Your task to perform on an android device: make emails show in primary in the gmail app Image 0: 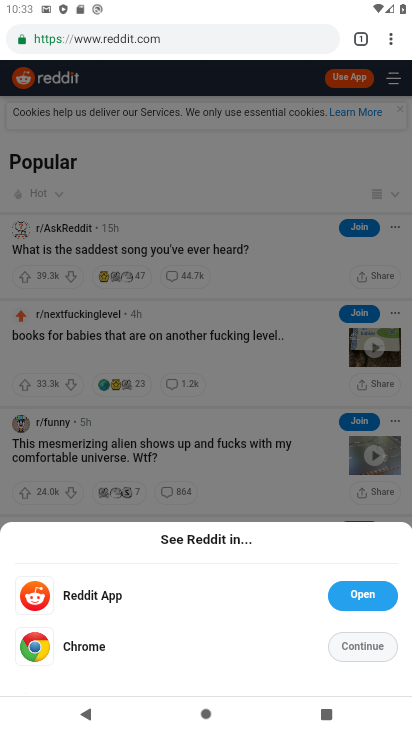
Step 0: press home button
Your task to perform on an android device: make emails show in primary in the gmail app Image 1: 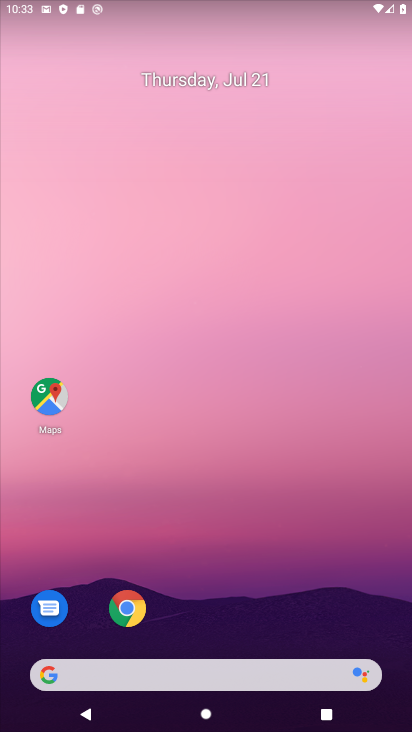
Step 1: drag from (198, 629) to (144, 9)
Your task to perform on an android device: make emails show in primary in the gmail app Image 2: 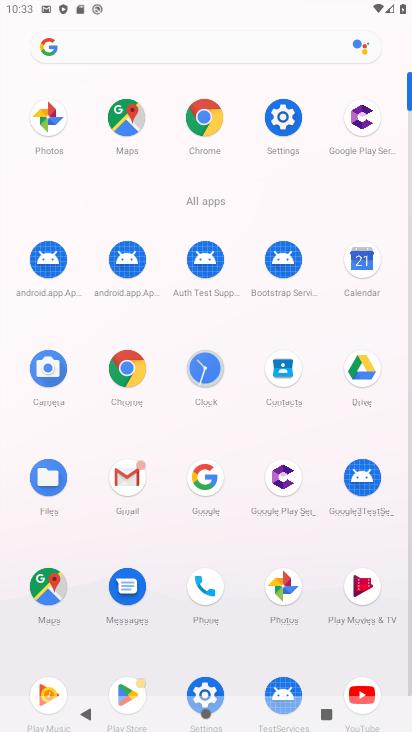
Step 2: click (124, 489)
Your task to perform on an android device: make emails show in primary in the gmail app Image 3: 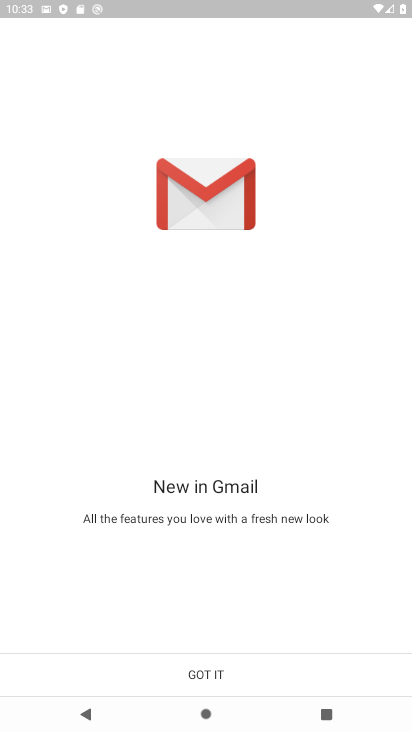
Step 3: click (203, 672)
Your task to perform on an android device: make emails show in primary in the gmail app Image 4: 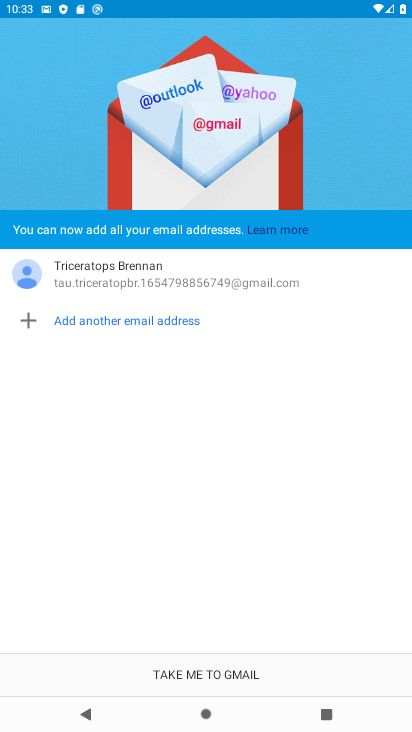
Step 4: click (203, 672)
Your task to perform on an android device: make emails show in primary in the gmail app Image 5: 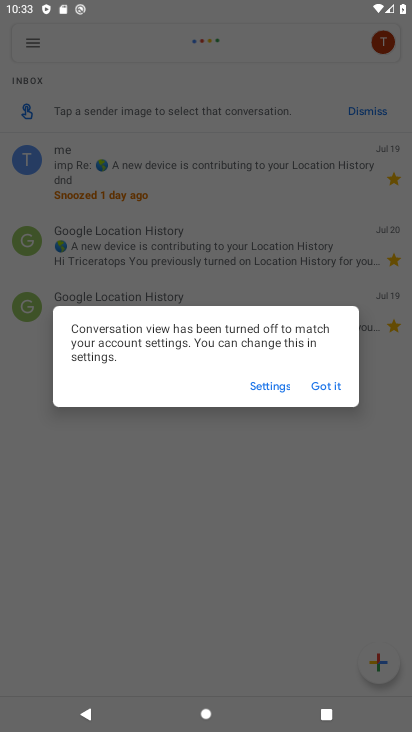
Step 5: click (328, 385)
Your task to perform on an android device: make emails show in primary in the gmail app Image 6: 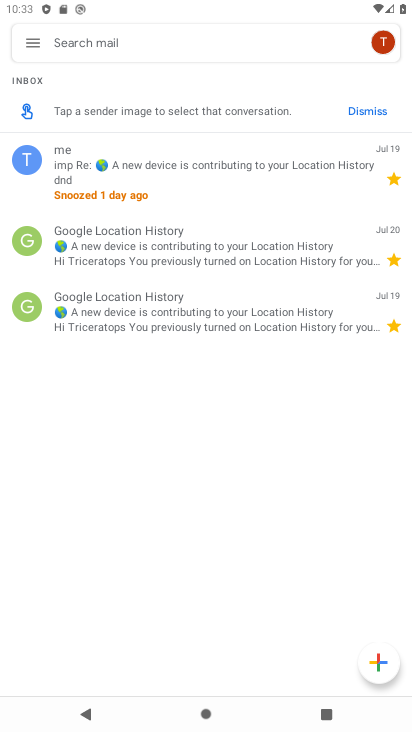
Step 6: click (37, 37)
Your task to perform on an android device: make emails show in primary in the gmail app Image 7: 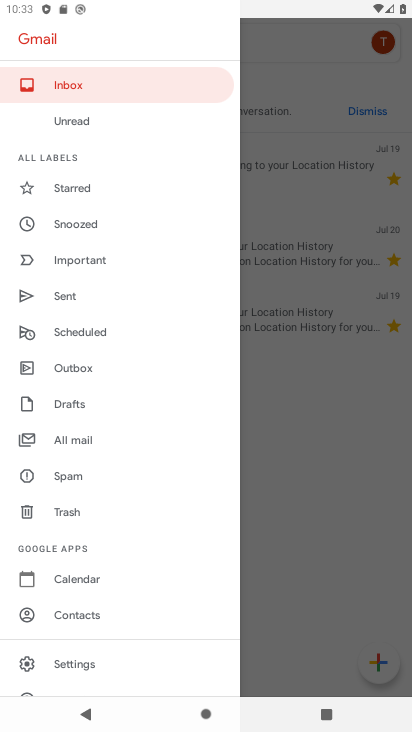
Step 7: click (78, 662)
Your task to perform on an android device: make emails show in primary in the gmail app Image 8: 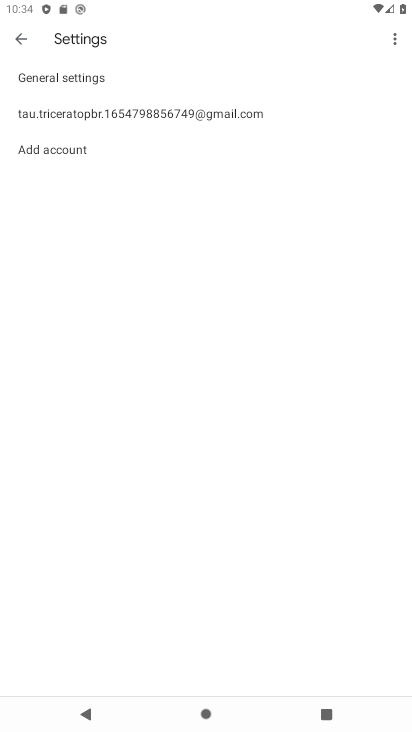
Step 8: click (215, 111)
Your task to perform on an android device: make emails show in primary in the gmail app Image 9: 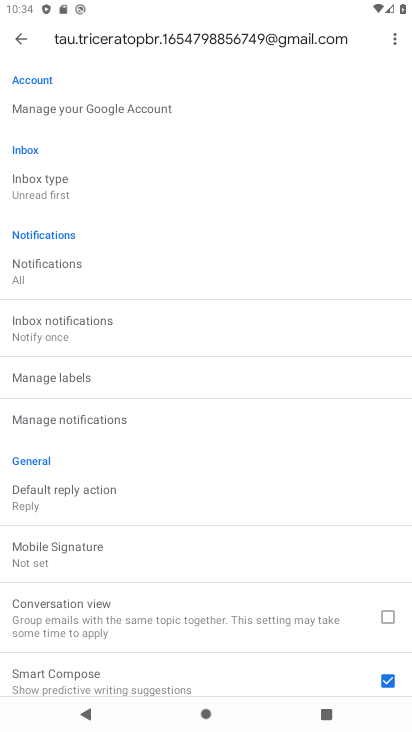
Step 9: task complete